Your task to perform on an android device: Go to battery settings Image 0: 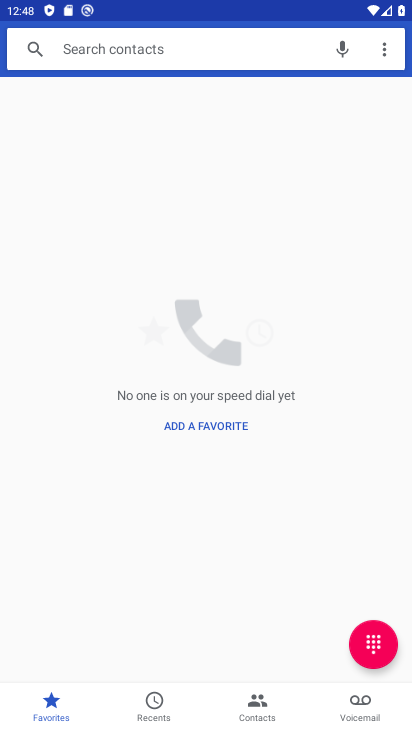
Step 0: press home button
Your task to perform on an android device: Go to battery settings Image 1: 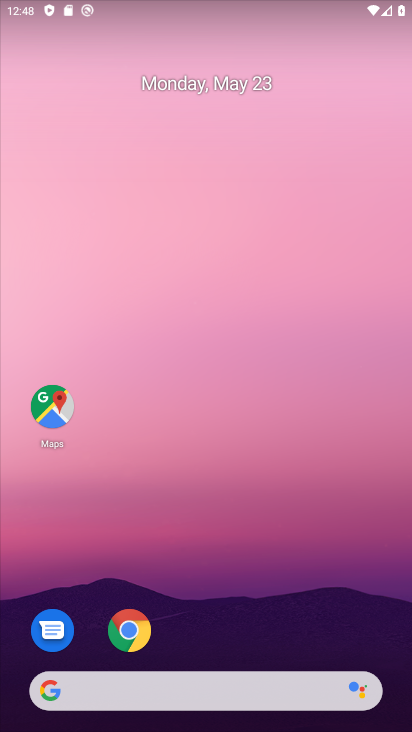
Step 1: drag from (343, 601) to (335, 79)
Your task to perform on an android device: Go to battery settings Image 2: 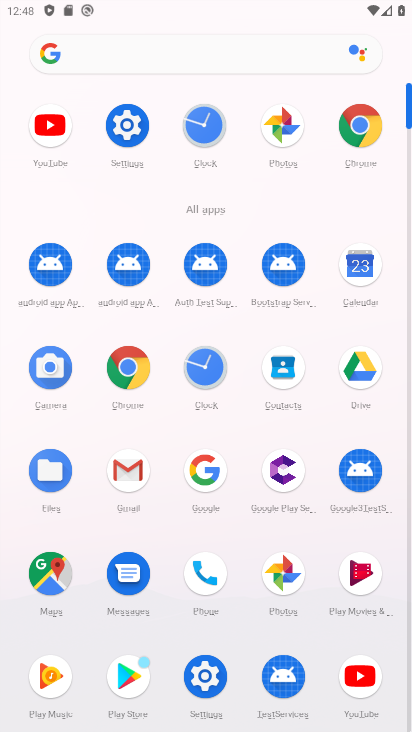
Step 2: click (197, 690)
Your task to perform on an android device: Go to battery settings Image 3: 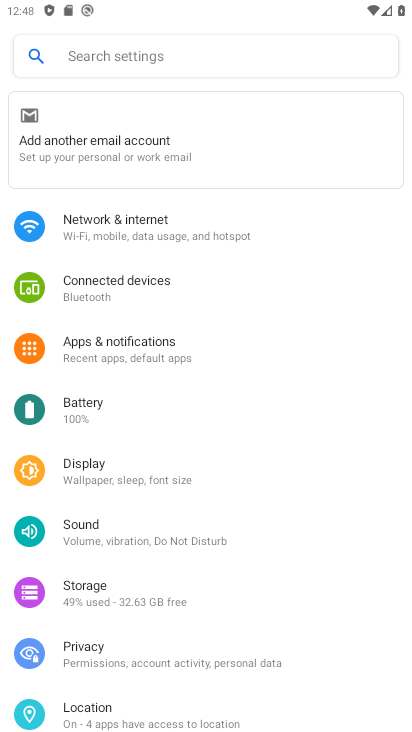
Step 3: click (104, 412)
Your task to perform on an android device: Go to battery settings Image 4: 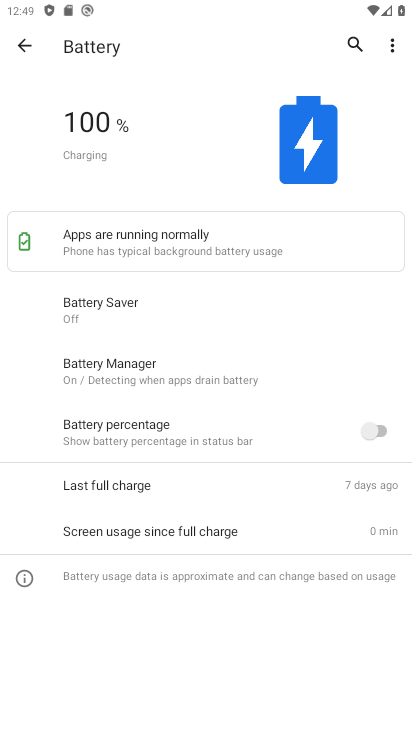
Step 4: task complete